Your task to perform on an android device: Go to location settings Image 0: 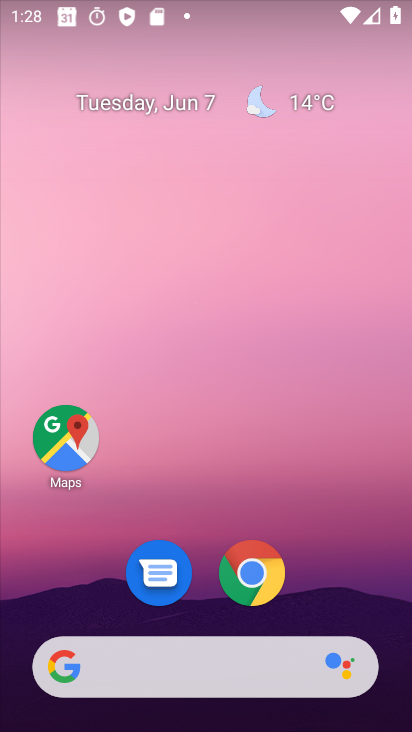
Step 0: press home button
Your task to perform on an android device: Go to location settings Image 1: 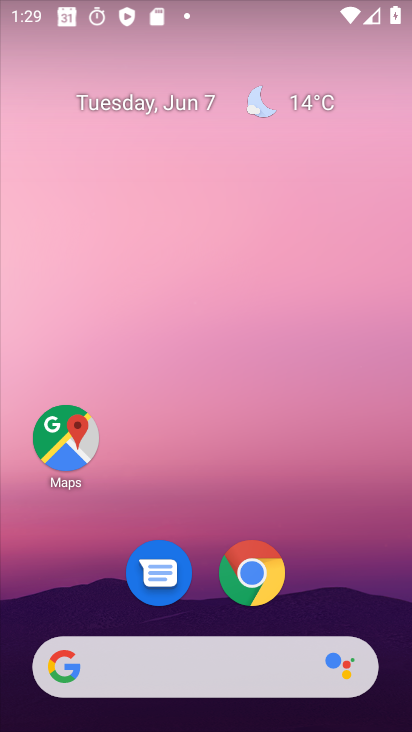
Step 1: drag from (202, 615) to (240, 83)
Your task to perform on an android device: Go to location settings Image 2: 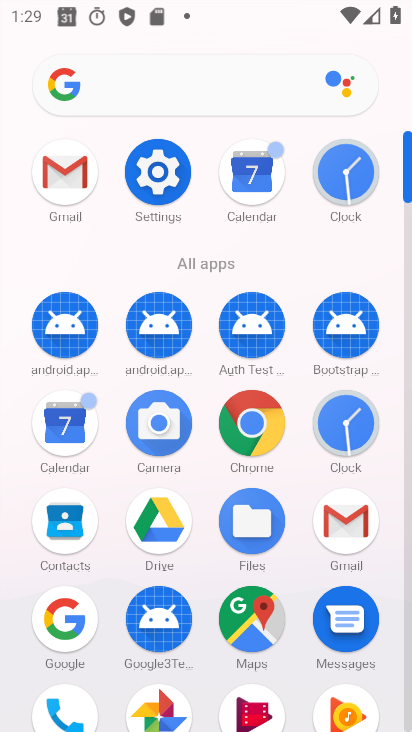
Step 2: click (161, 165)
Your task to perform on an android device: Go to location settings Image 3: 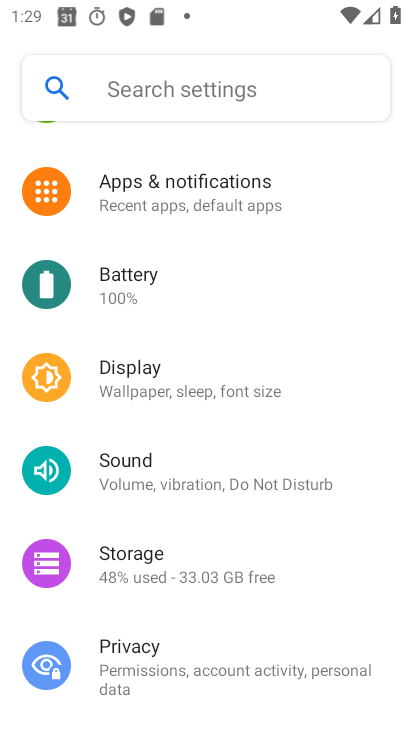
Step 3: drag from (182, 632) to (219, 82)
Your task to perform on an android device: Go to location settings Image 4: 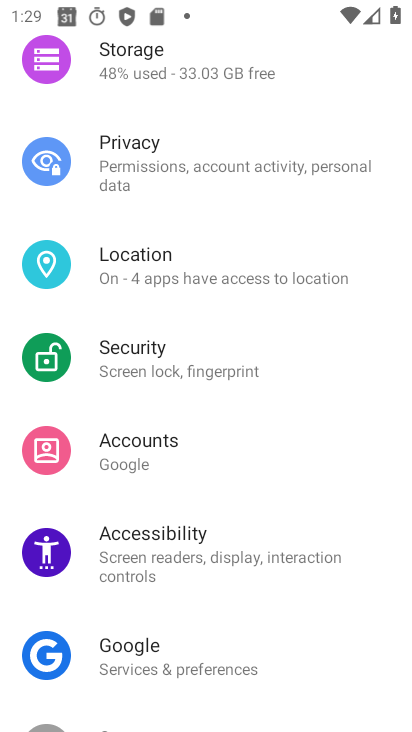
Step 4: click (175, 265)
Your task to perform on an android device: Go to location settings Image 5: 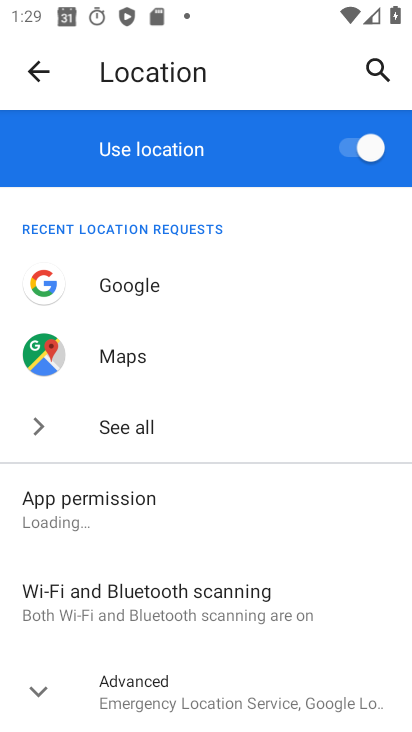
Step 5: click (46, 688)
Your task to perform on an android device: Go to location settings Image 6: 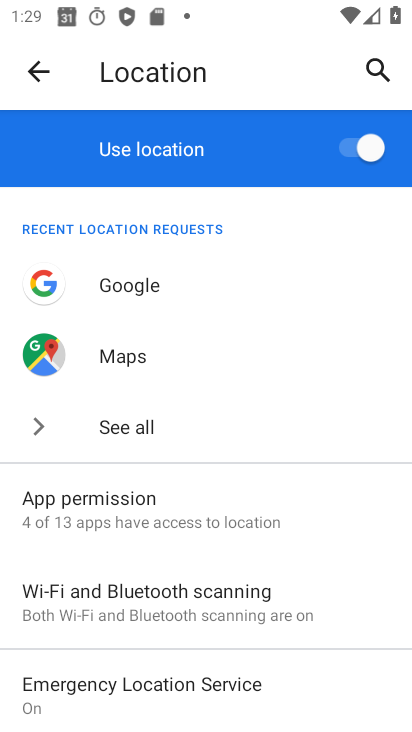
Step 6: task complete